Your task to perform on an android device: Go to Amazon Image 0: 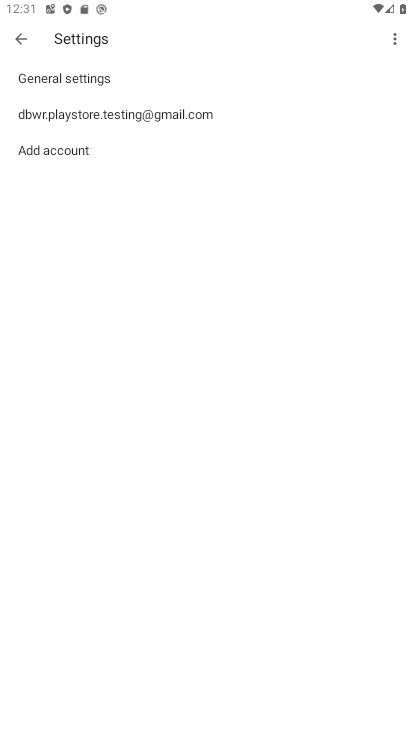
Step 0: press home button
Your task to perform on an android device: Go to Amazon Image 1: 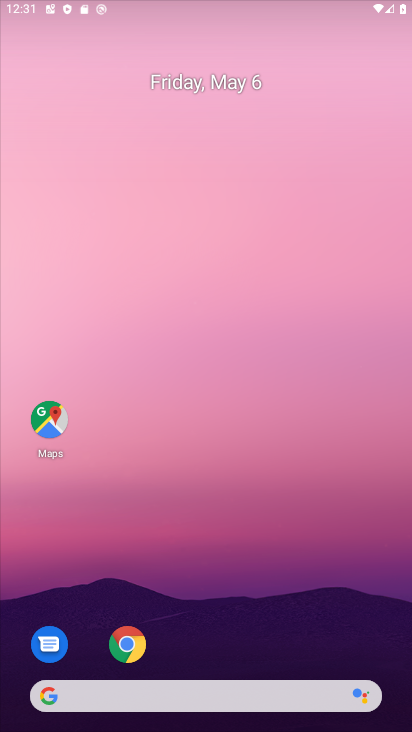
Step 1: drag from (179, 682) to (219, 14)
Your task to perform on an android device: Go to Amazon Image 2: 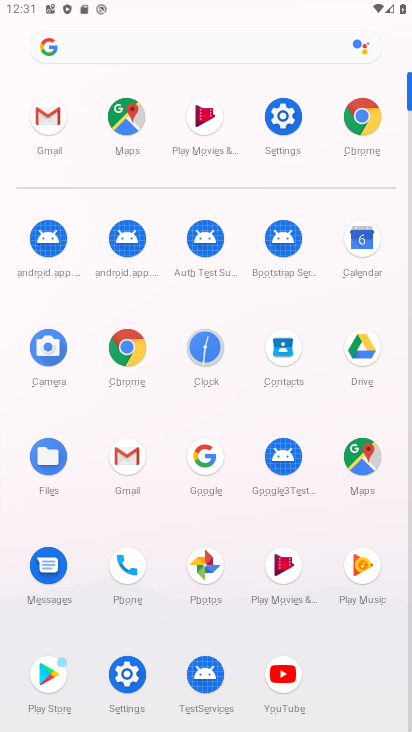
Step 2: click (129, 336)
Your task to perform on an android device: Go to Amazon Image 3: 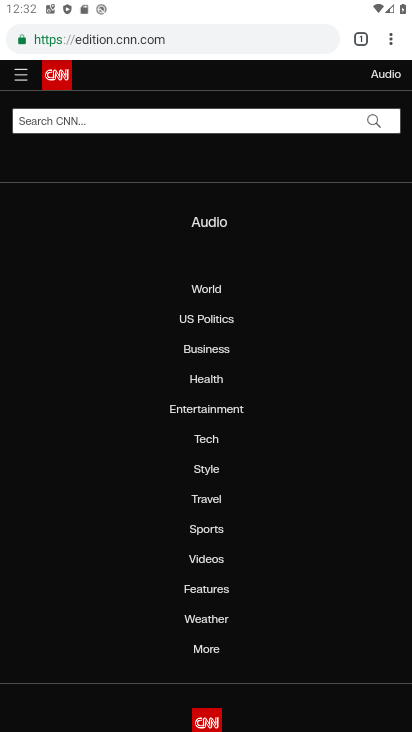
Step 3: drag from (223, 216) to (253, 602)
Your task to perform on an android device: Go to Amazon Image 4: 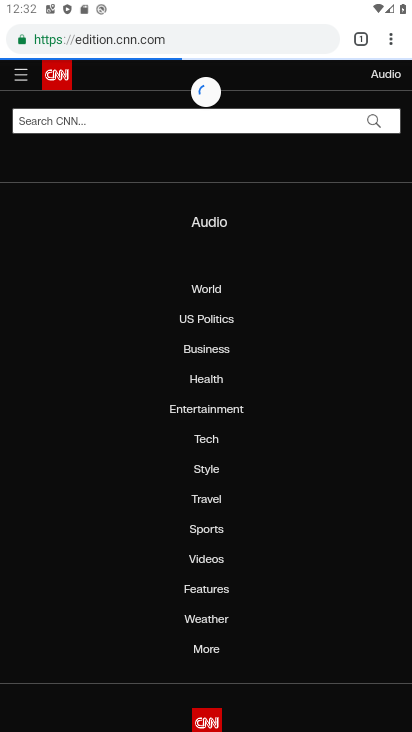
Step 4: click (237, 44)
Your task to perform on an android device: Go to Amazon Image 5: 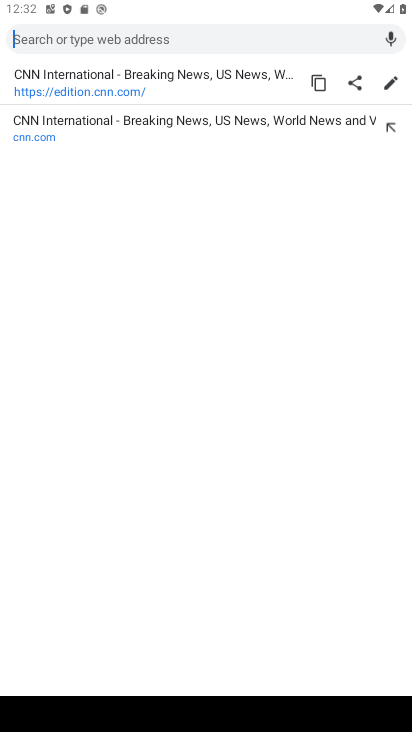
Step 5: type "amazon"
Your task to perform on an android device: Go to Amazon Image 6: 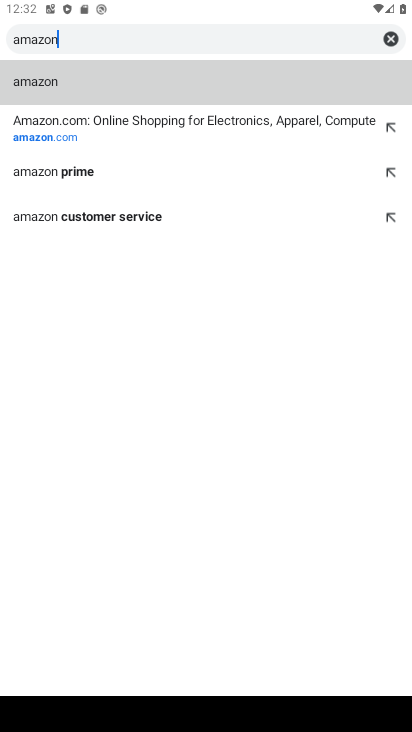
Step 6: click (183, 132)
Your task to perform on an android device: Go to Amazon Image 7: 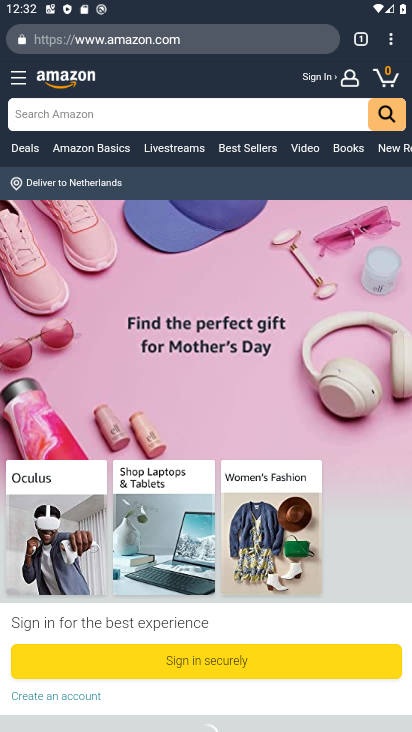
Step 7: task complete